Your task to perform on an android device: turn off airplane mode Image 0: 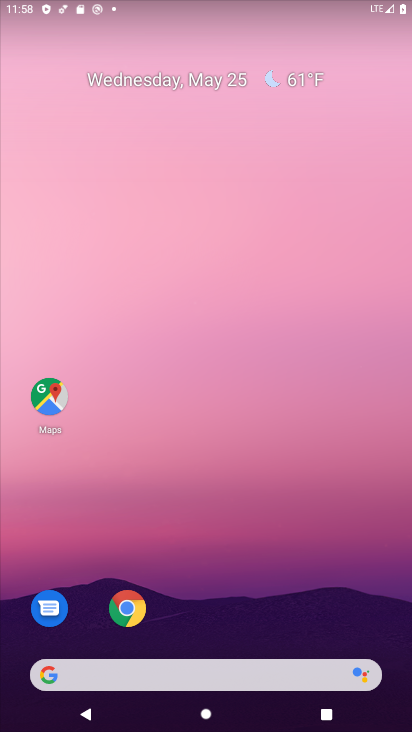
Step 0: drag from (385, 621) to (364, 94)
Your task to perform on an android device: turn off airplane mode Image 1: 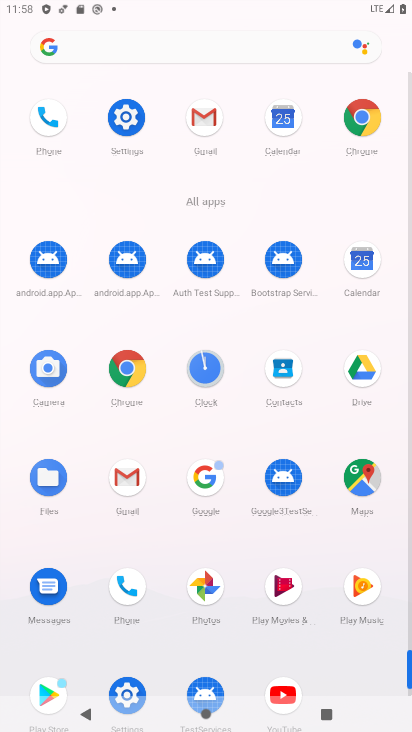
Step 1: click (408, 639)
Your task to perform on an android device: turn off airplane mode Image 2: 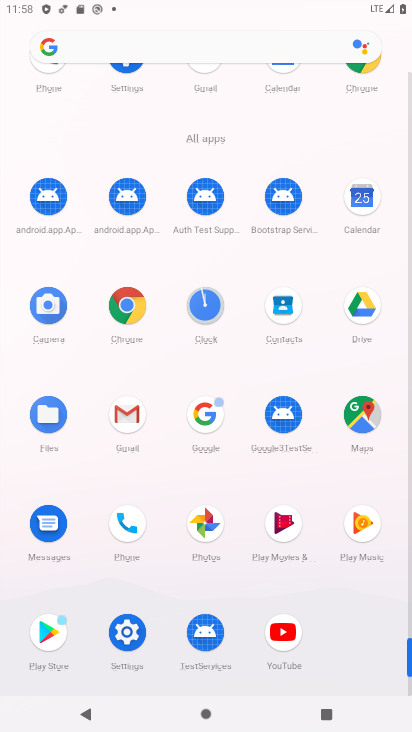
Step 2: click (124, 631)
Your task to perform on an android device: turn off airplane mode Image 3: 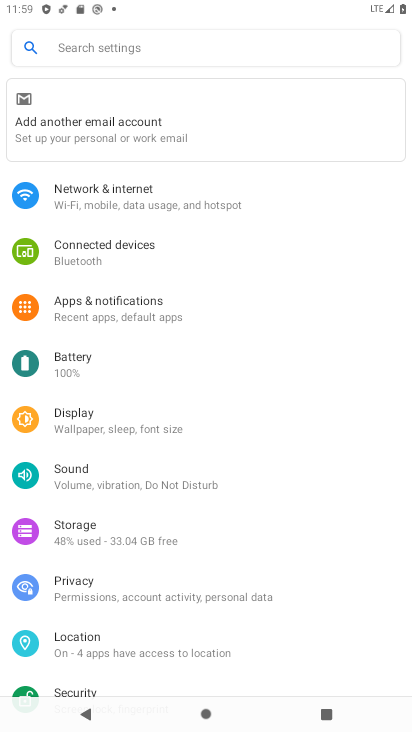
Step 3: click (125, 191)
Your task to perform on an android device: turn off airplane mode Image 4: 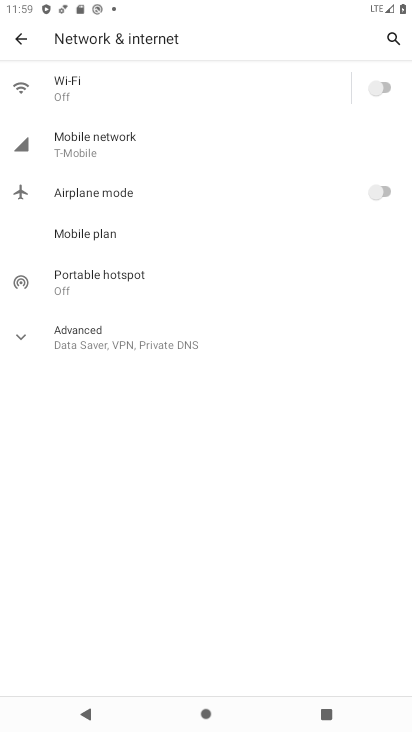
Step 4: task complete